Your task to perform on an android device: set an alarm Image 0: 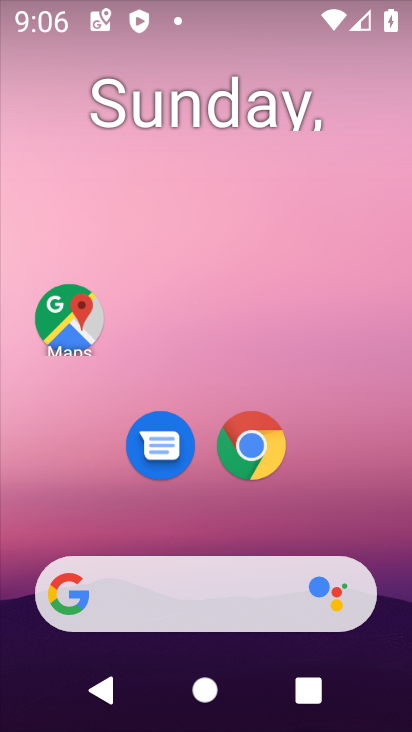
Step 0: drag from (386, 597) to (314, 72)
Your task to perform on an android device: set an alarm Image 1: 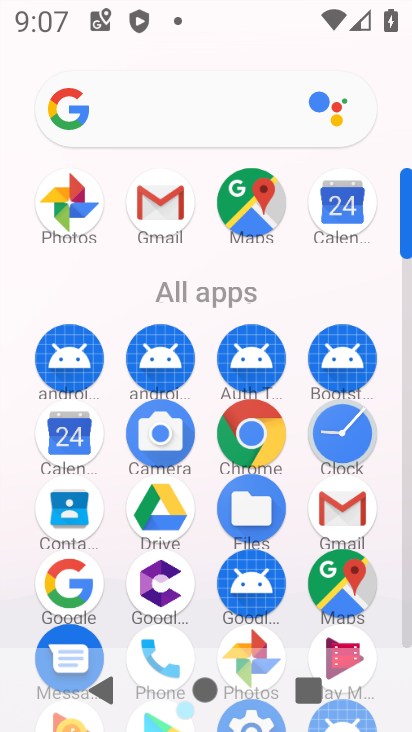
Step 1: click (406, 620)
Your task to perform on an android device: set an alarm Image 2: 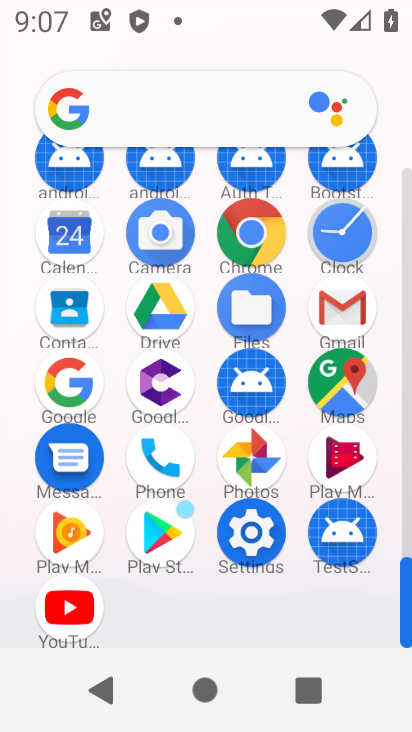
Step 2: click (345, 310)
Your task to perform on an android device: set an alarm Image 3: 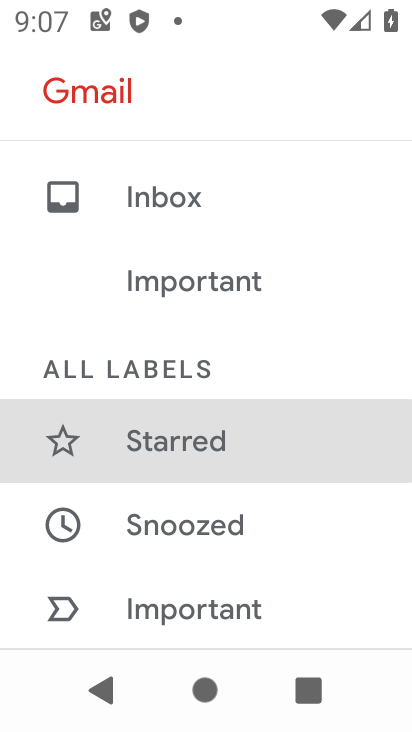
Step 3: click (157, 183)
Your task to perform on an android device: set an alarm Image 4: 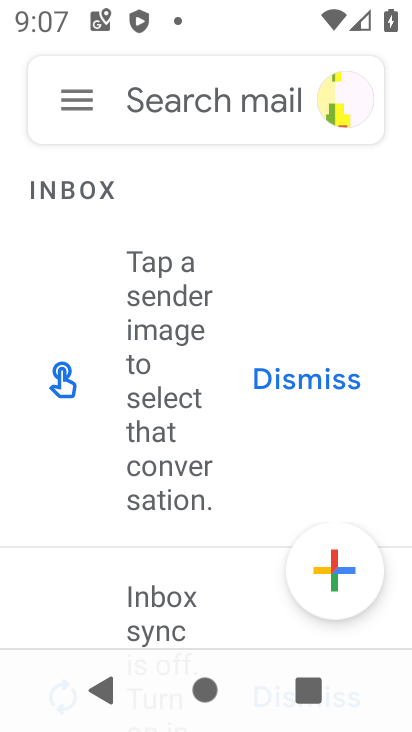
Step 4: task complete